Your task to perform on an android device: Open location settings Image 0: 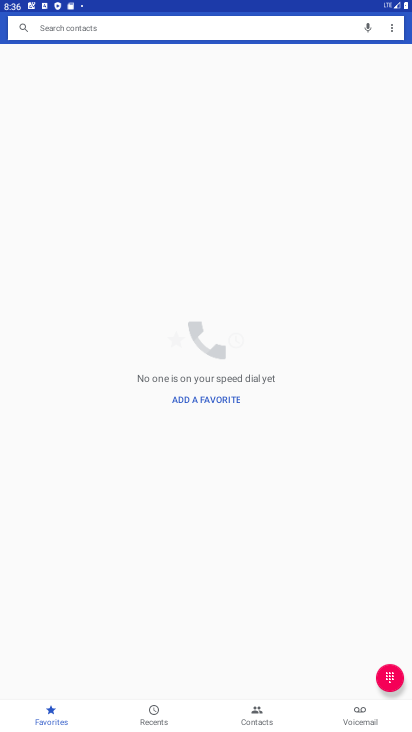
Step 0: press home button
Your task to perform on an android device: Open location settings Image 1: 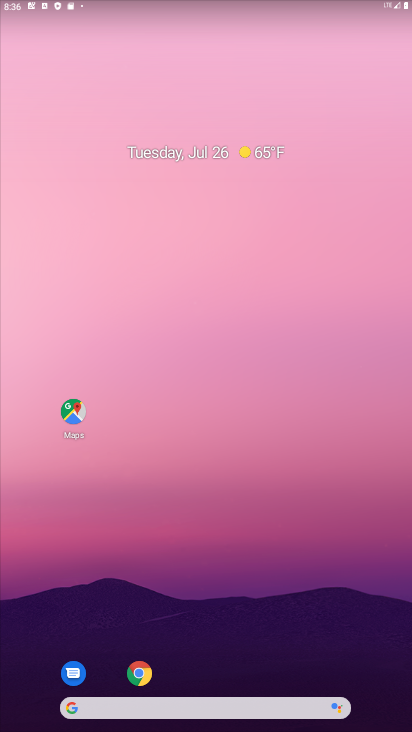
Step 1: drag from (212, 644) to (190, 210)
Your task to perform on an android device: Open location settings Image 2: 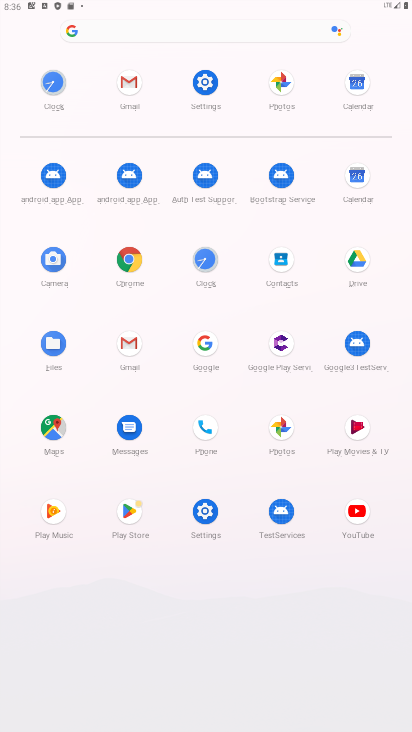
Step 2: click (222, 69)
Your task to perform on an android device: Open location settings Image 3: 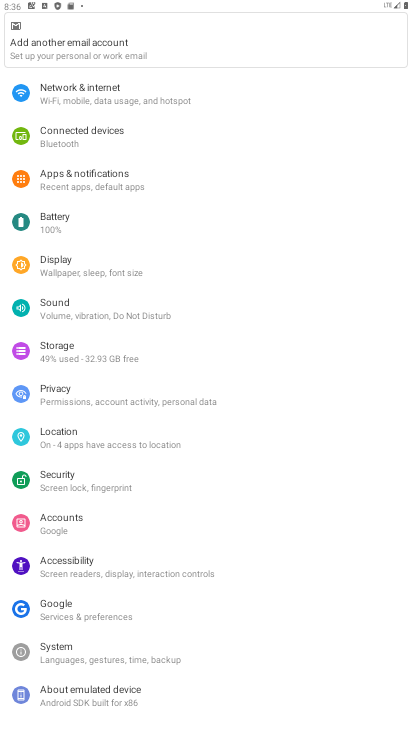
Step 3: click (119, 449)
Your task to perform on an android device: Open location settings Image 4: 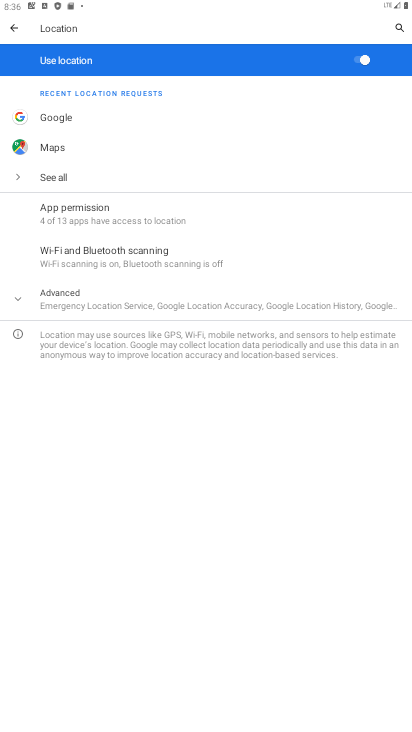
Step 4: task complete